Your task to perform on an android device: Search for dell xps on target.com, select the first entry, and add it to the cart. Image 0: 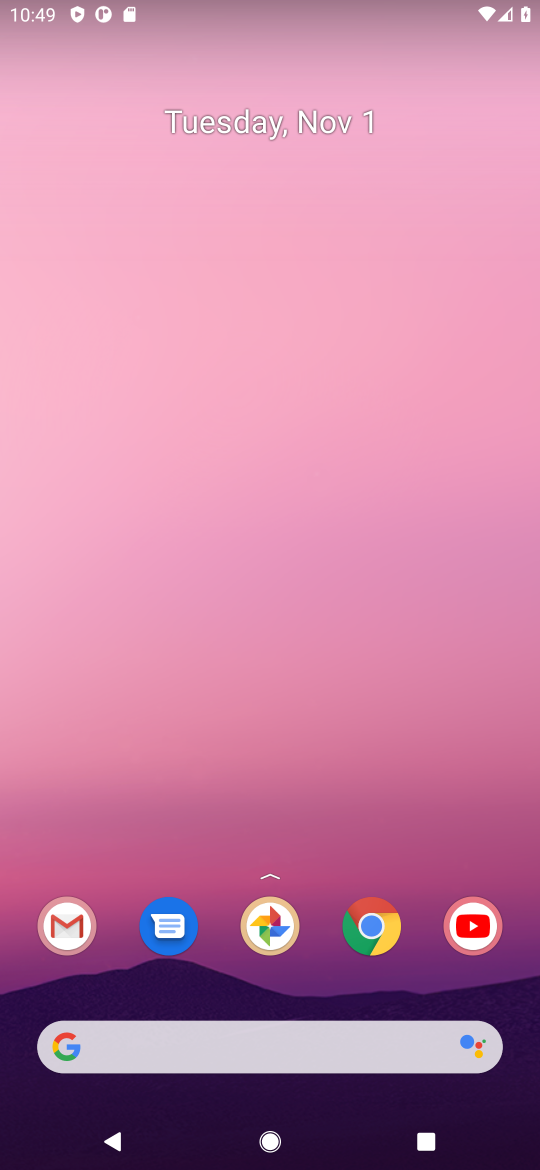
Step 0: press home button
Your task to perform on an android device: Search for dell xps on target.com, select the first entry, and add it to the cart. Image 1: 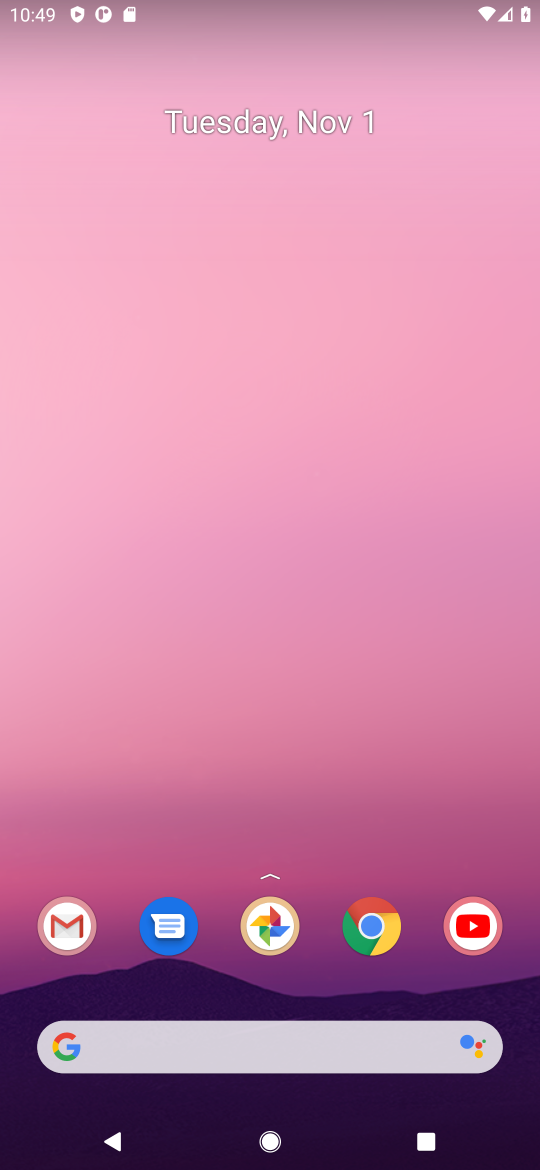
Step 1: click (357, 936)
Your task to perform on an android device: Search for dell xps on target.com, select the first entry, and add it to the cart. Image 2: 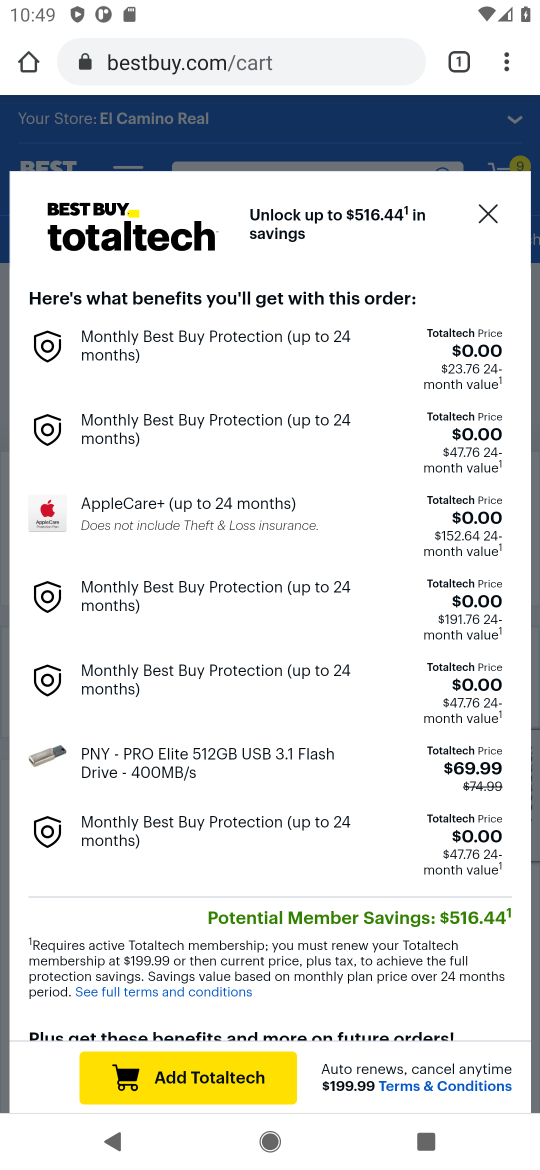
Step 2: click (480, 215)
Your task to perform on an android device: Search for dell xps on target.com, select the first entry, and add it to the cart. Image 3: 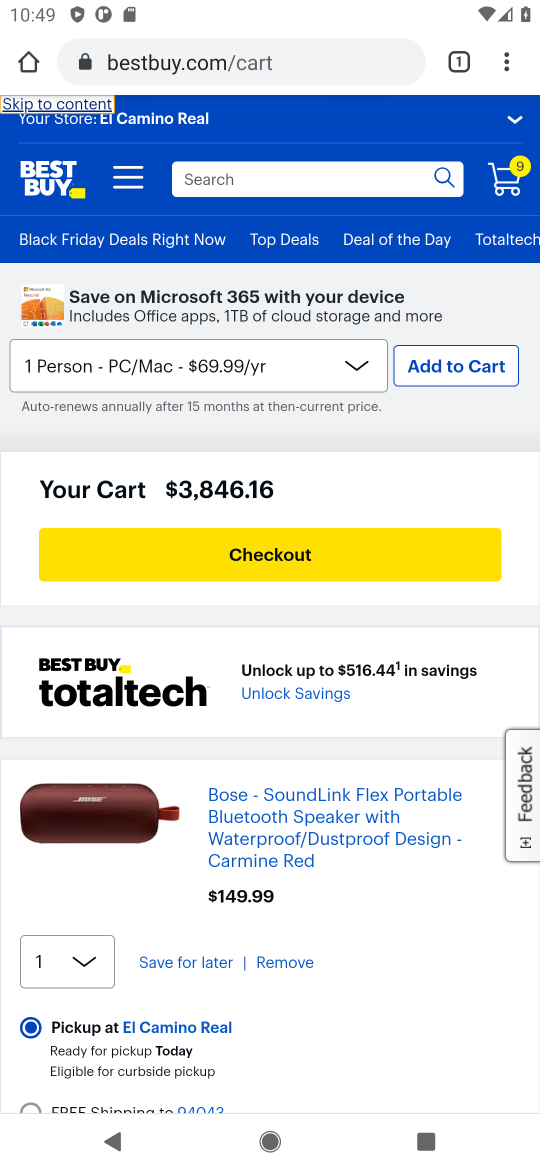
Step 3: click (171, 55)
Your task to perform on an android device: Search for dell xps on target.com, select the first entry, and add it to the cart. Image 4: 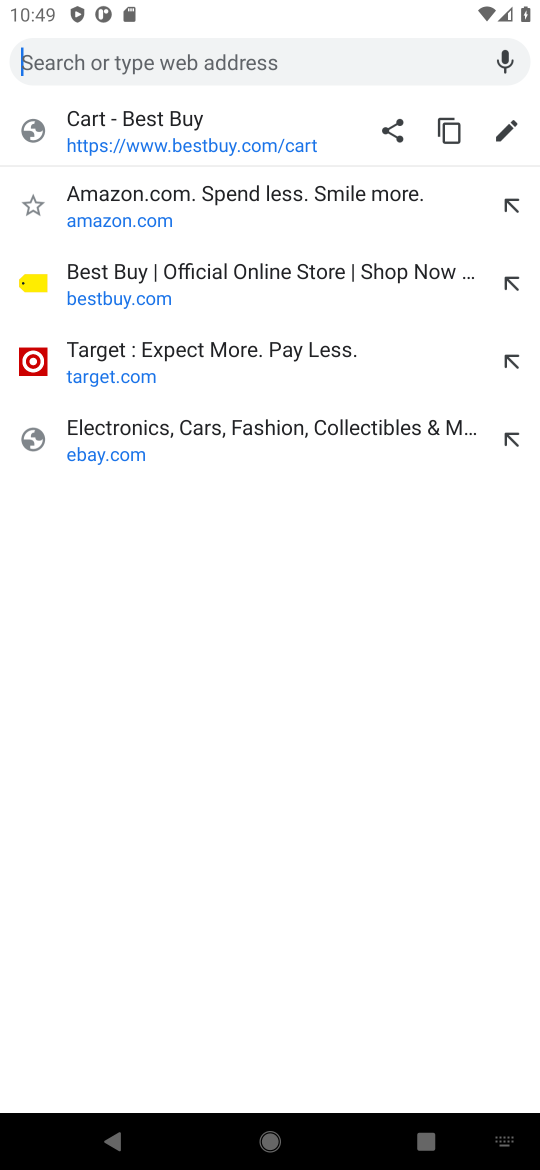
Step 4: type "target.com"
Your task to perform on an android device: Search for dell xps on target.com, select the first entry, and add it to the cart. Image 5: 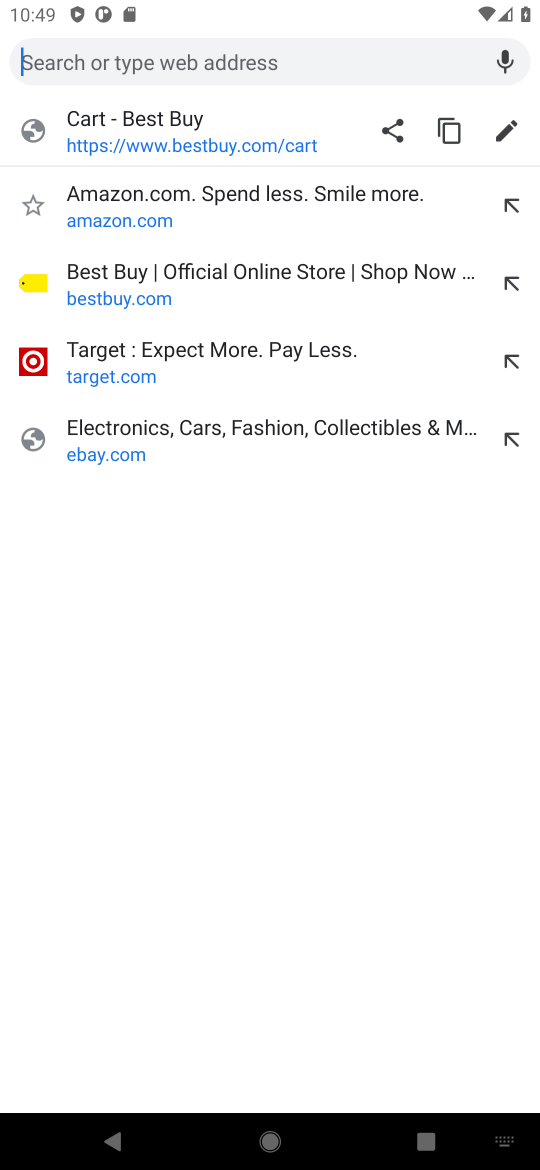
Step 5: click (116, 353)
Your task to perform on an android device: Search for dell xps on target.com, select the first entry, and add it to the cart. Image 6: 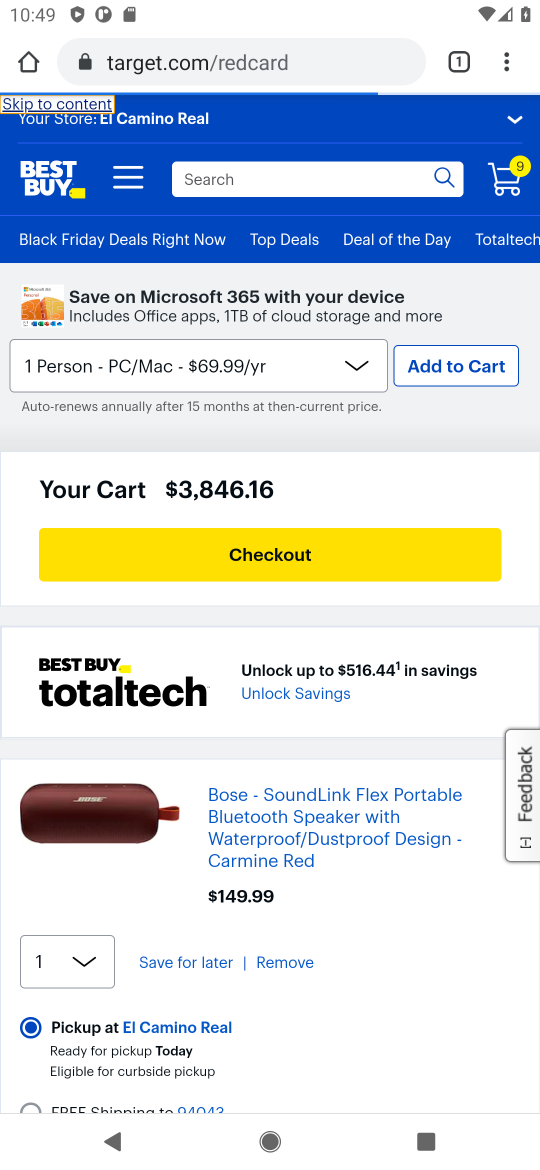
Step 6: click (181, 149)
Your task to perform on an android device: Search for dell xps on target.com, select the first entry, and add it to the cart. Image 7: 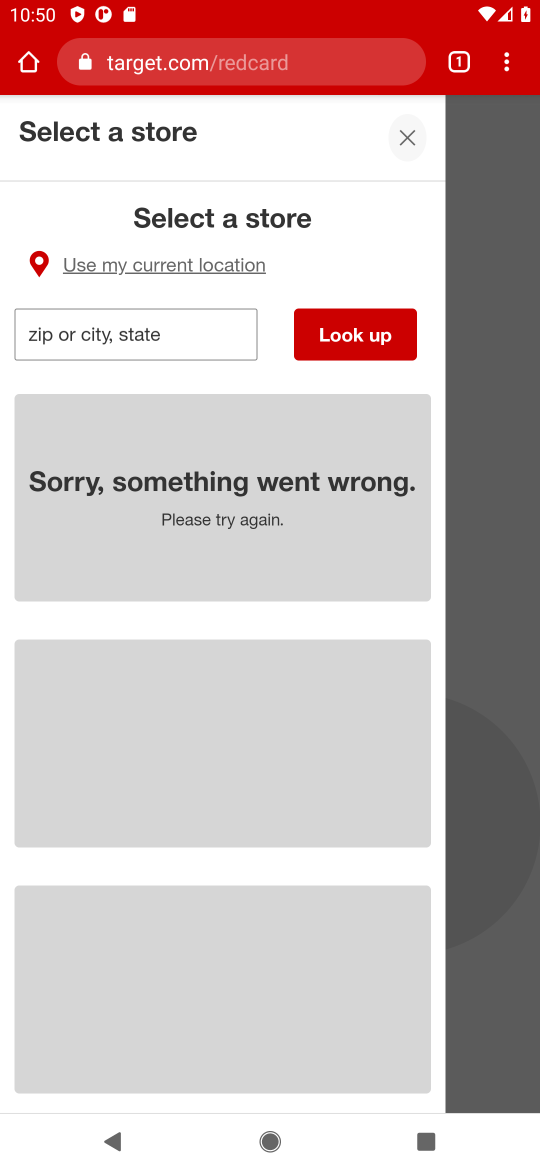
Step 7: click (406, 136)
Your task to perform on an android device: Search for dell xps on target.com, select the first entry, and add it to the cart. Image 8: 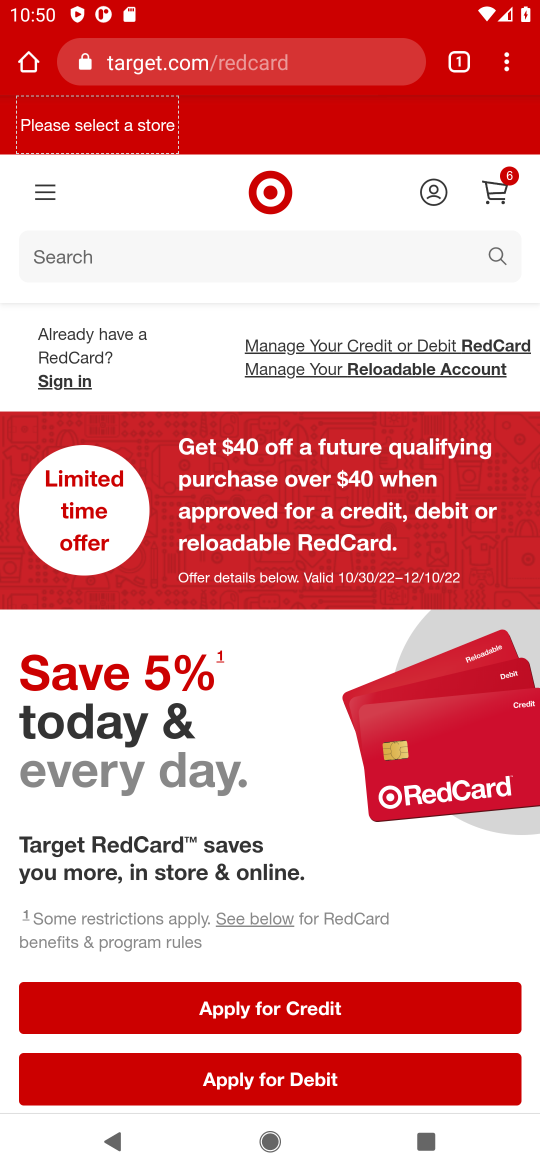
Step 8: click (260, 258)
Your task to perform on an android device: Search for dell xps on target.com, select the first entry, and add it to the cart. Image 9: 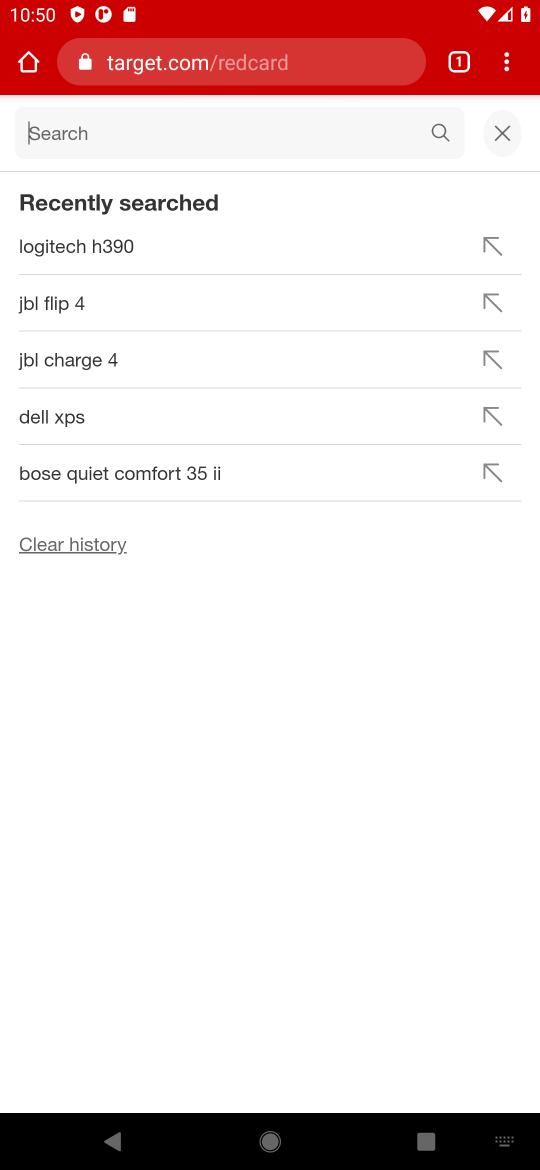
Step 9: click (44, 421)
Your task to perform on an android device: Search for dell xps on target.com, select the first entry, and add it to the cart. Image 10: 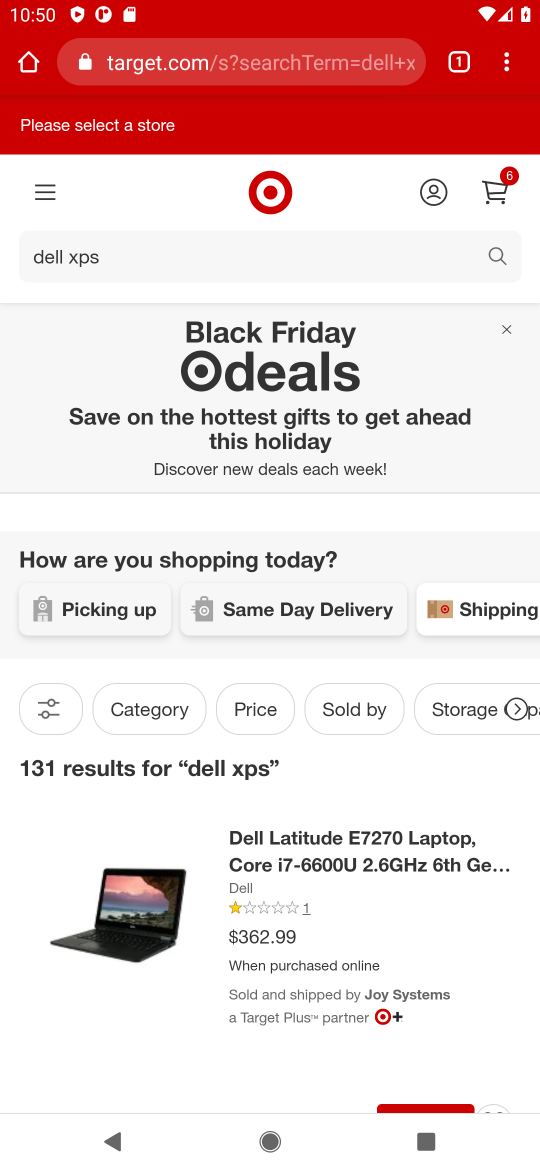
Step 10: drag from (205, 962) to (308, 241)
Your task to perform on an android device: Search for dell xps on target.com, select the first entry, and add it to the cart. Image 11: 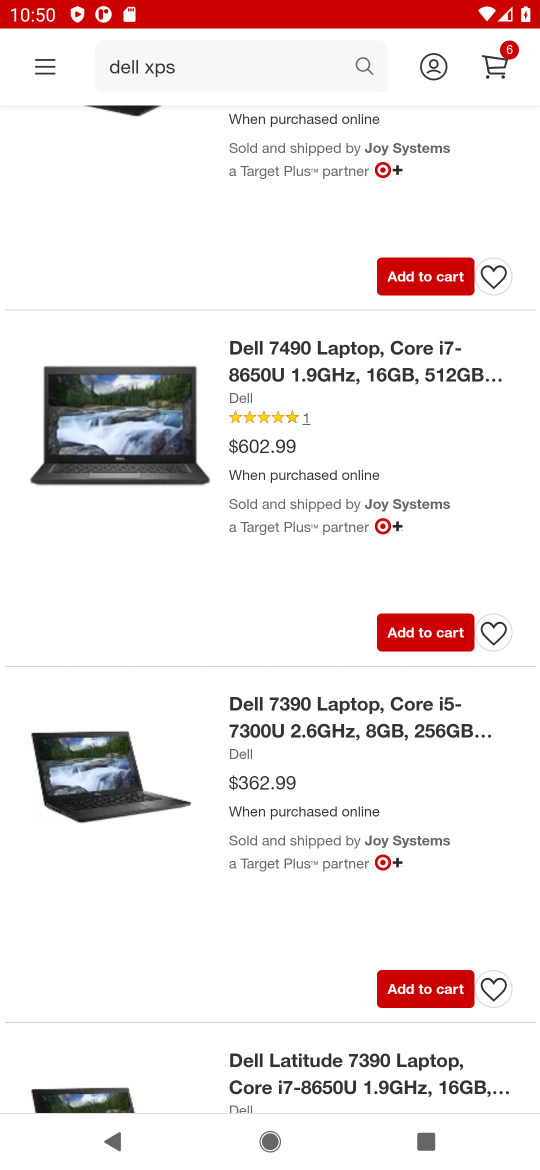
Step 11: drag from (146, 907) to (235, 128)
Your task to perform on an android device: Search for dell xps on target.com, select the first entry, and add it to the cart. Image 12: 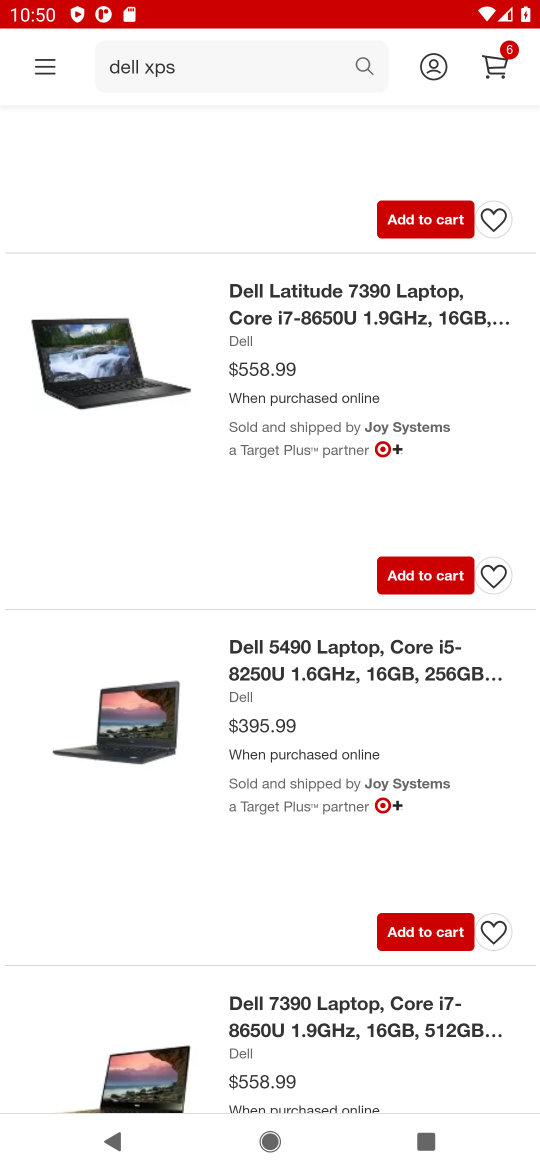
Step 12: drag from (221, 751) to (226, 358)
Your task to perform on an android device: Search for dell xps on target.com, select the first entry, and add it to the cart. Image 13: 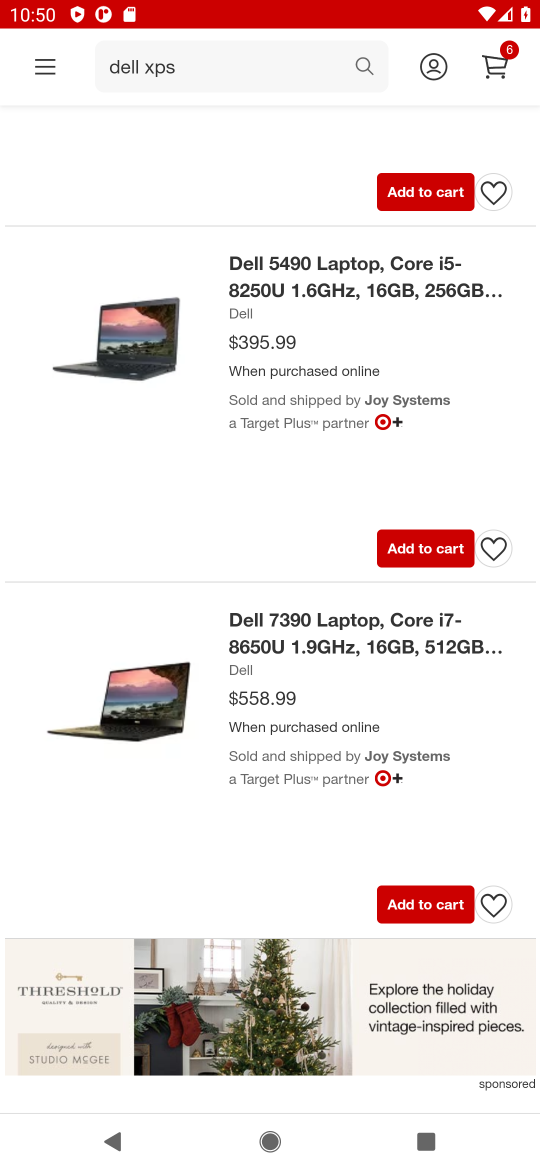
Step 13: drag from (244, 949) to (268, 506)
Your task to perform on an android device: Search for dell xps on target.com, select the first entry, and add it to the cart. Image 14: 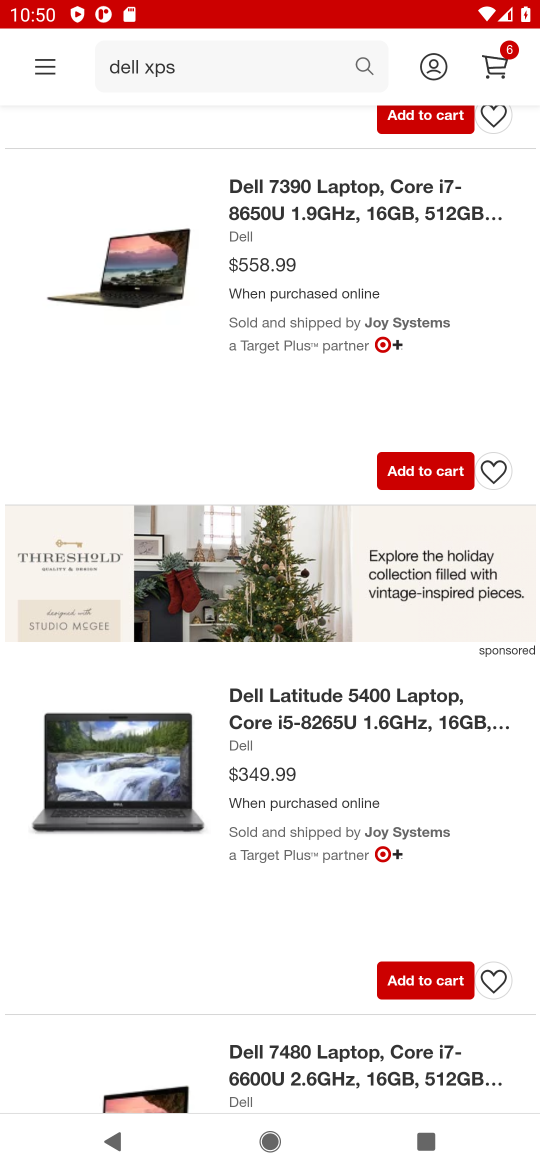
Step 14: click (271, 1084)
Your task to perform on an android device: Search for dell xps on target.com, select the first entry, and add it to the cart. Image 15: 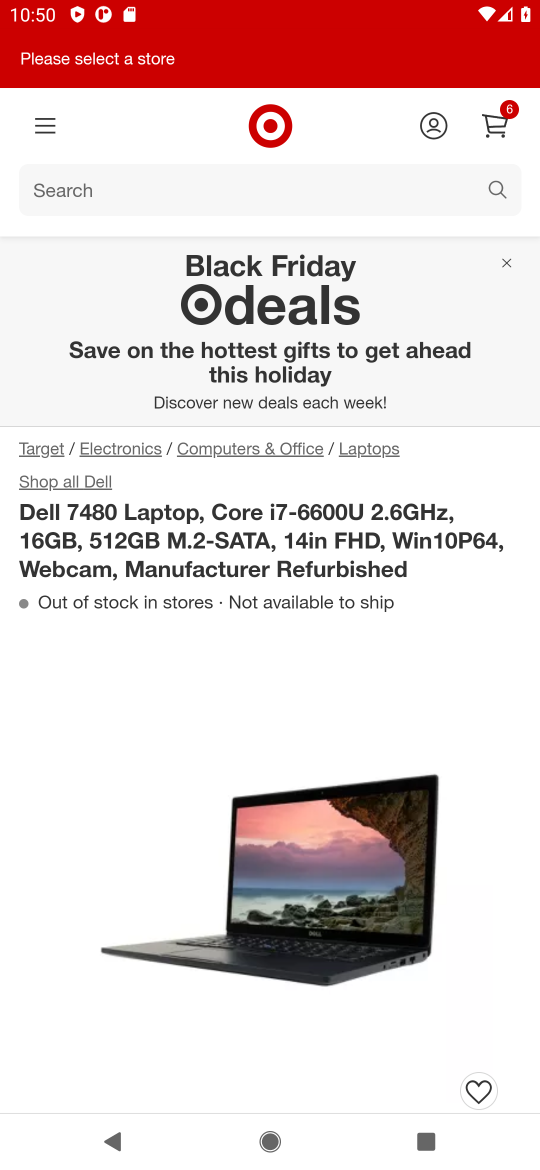
Step 15: drag from (129, 877) to (237, 416)
Your task to perform on an android device: Search for dell xps on target.com, select the first entry, and add it to the cart. Image 16: 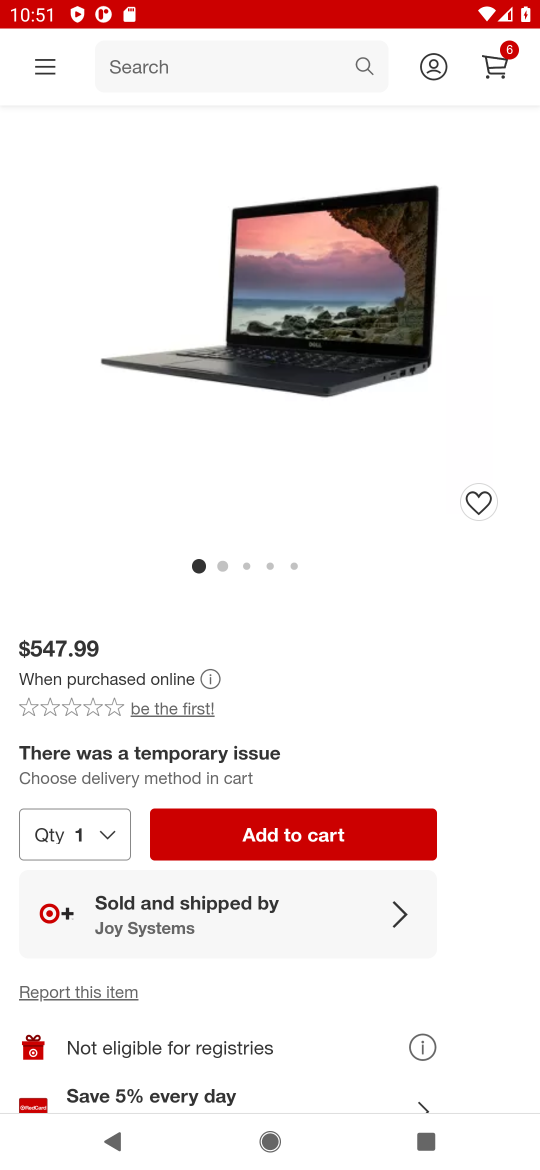
Step 16: click (274, 848)
Your task to perform on an android device: Search for dell xps on target.com, select the first entry, and add it to the cart. Image 17: 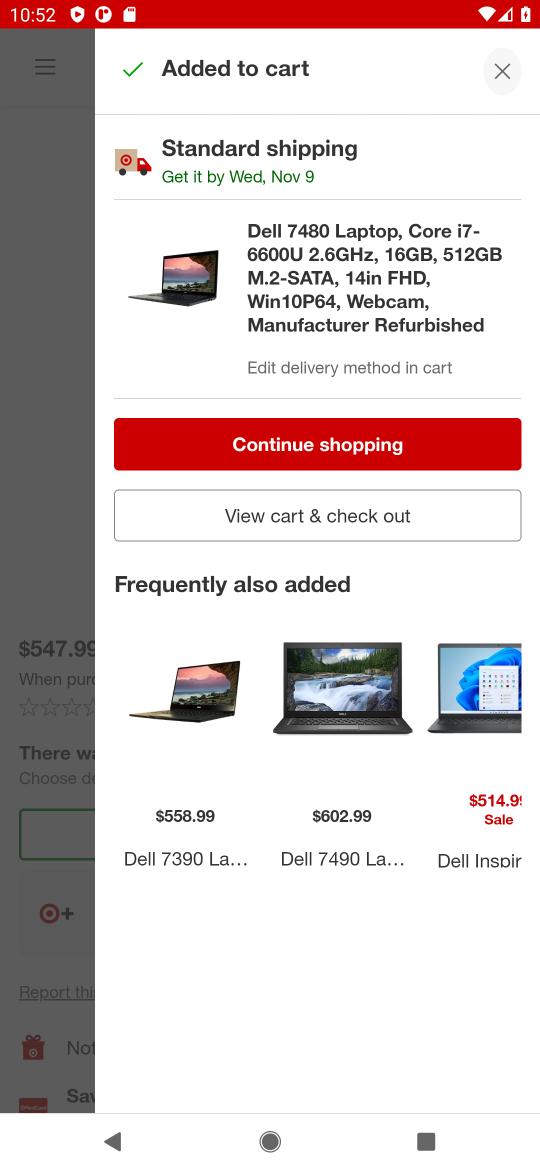
Step 17: click (308, 519)
Your task to perform on an android device: Search for dell xps on target.com, select the first entry, and add it to the cart. Image 18: 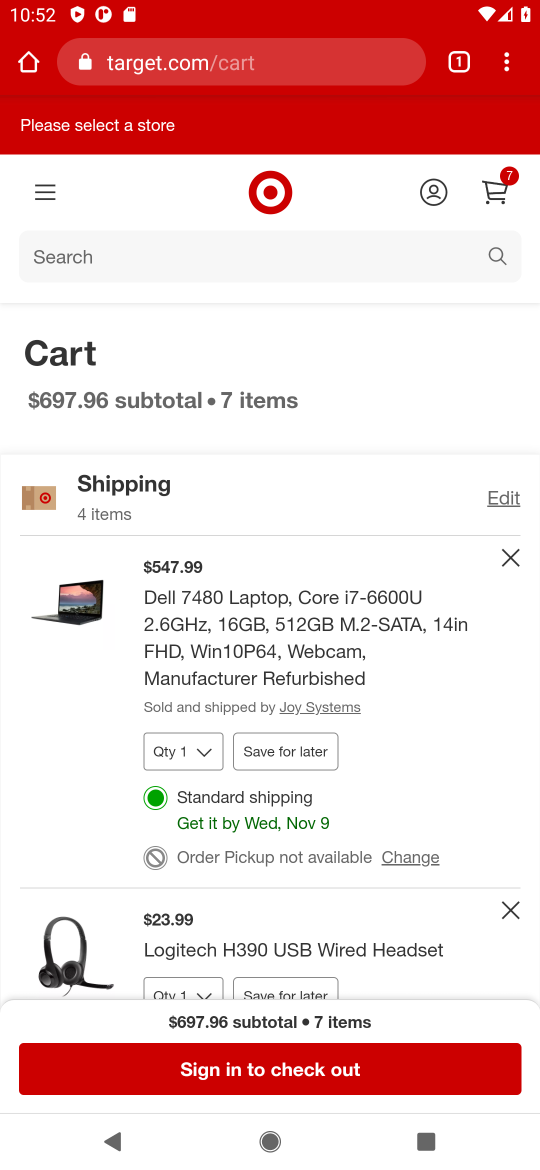
Step 18: task complete